Your task to perform on an android device: Open Youtube and go to the subscriptions tab Image 0: 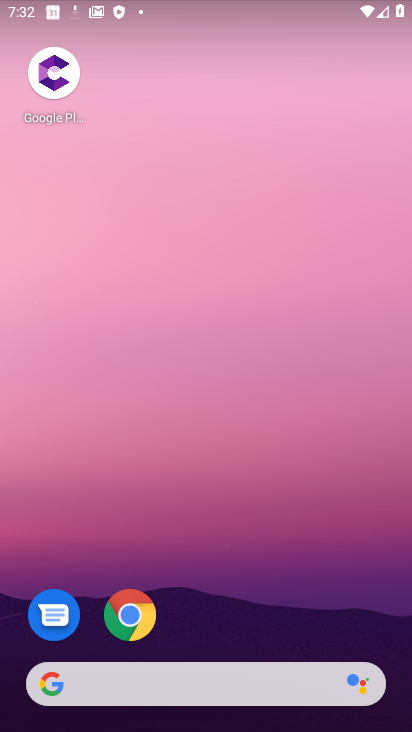
Step 0: drag from (233, 635) to (304, 75)
Your task to perform on an android device: Open Youtube and go to the subscriptions tab Image 1: 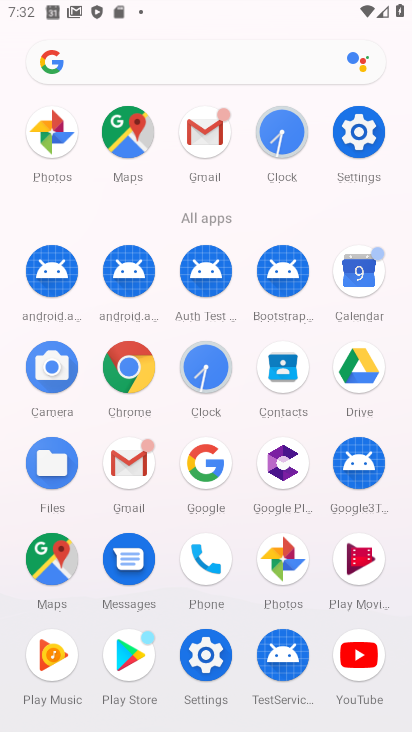
Step 1: click (342, 666)
Your task to perform on an android device: Open Youtube and go to the subscriptions tab Image 2: 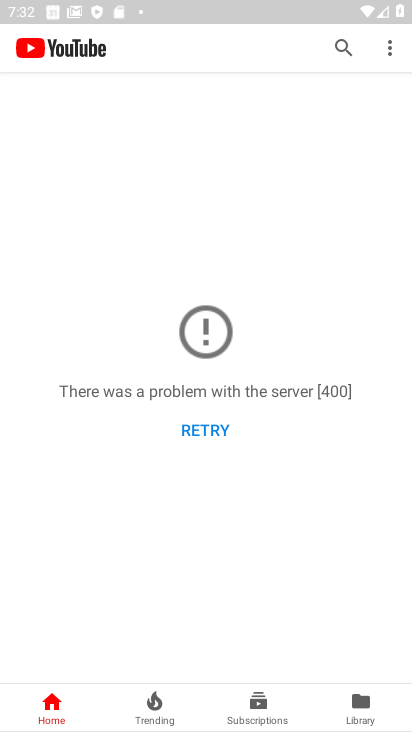
Step 2: click (270, 701)
Your task to perform on an android device: Open Youtube and go to the subscriptions tab Image 3: 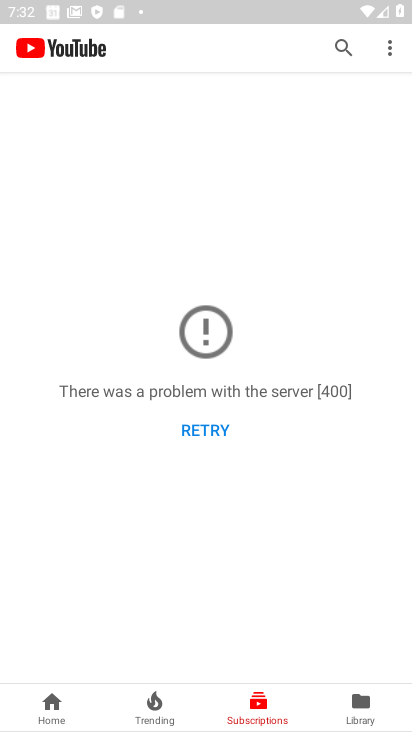
Step 3: task complete